Your task to perform on an android device: Open calendar and show me the first week of next month Image 0: 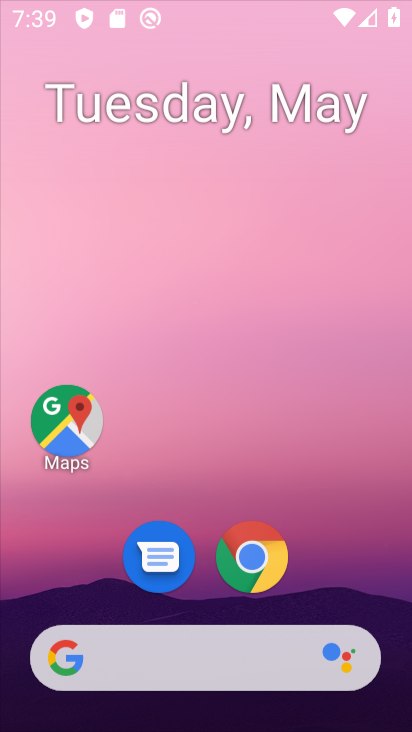
Step 0: drag from (175, 69) to (25, 11)
Your task to perform on an android device: Open calendar and show me the first week of next month Image 1: 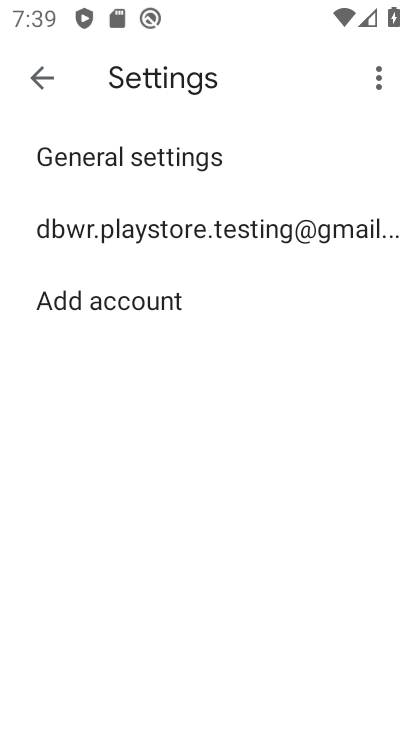
Step 1: click (34, 81)
Your task to perform on an android device: Open calendar and show me the first week of next month Image 2: 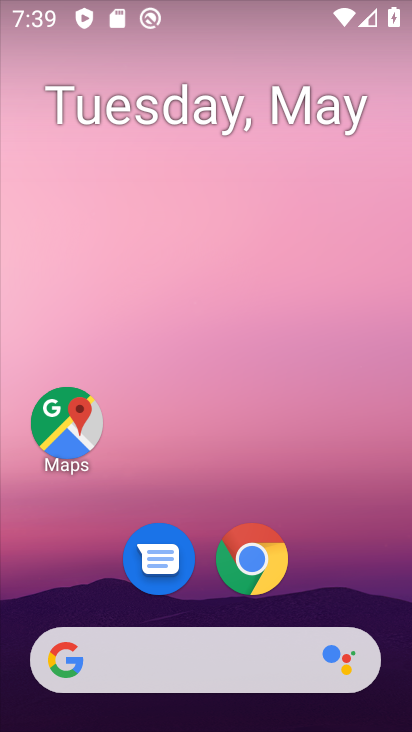
Step 2: drag from (355, 611) to (107, 100)
Your task to perform on an android device: Open calendar and show me the first week of next month Image 3: 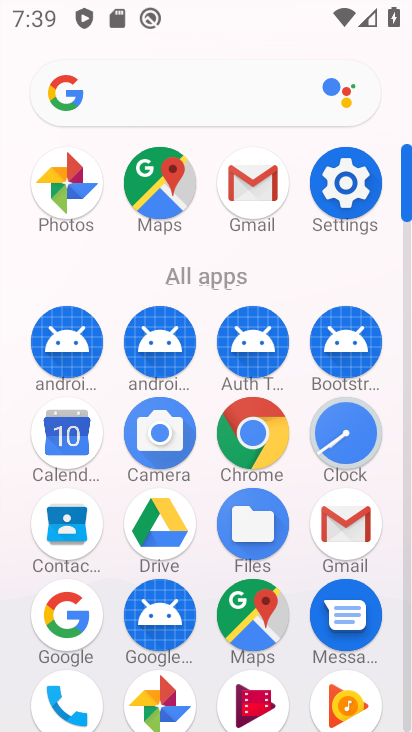
Step 3: click (65, 444)
Your task to perform on an android device: Open calendar and show me the first week of next month Image 4: 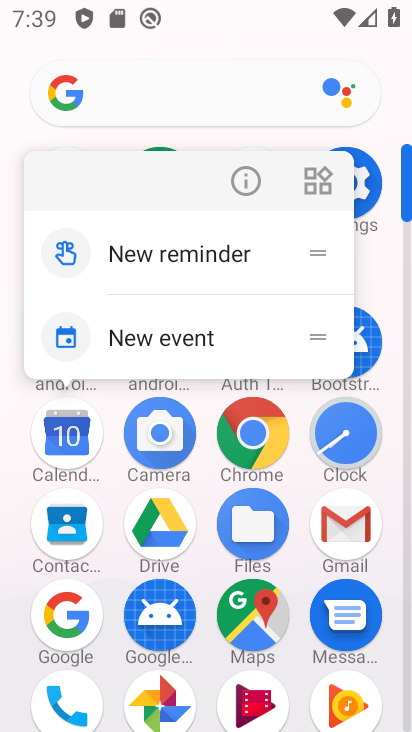
Step 4: click (68, 441)
Your task to perform on an android device: Open calendar and show me the first week of next month Image 5: 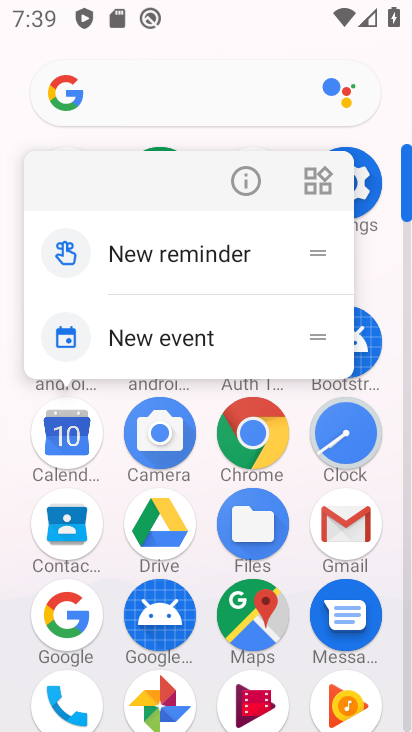
Step 5: click (69, 440)
Your task to perform on an android device: Open calendar and show me the first week of next month Image 6: 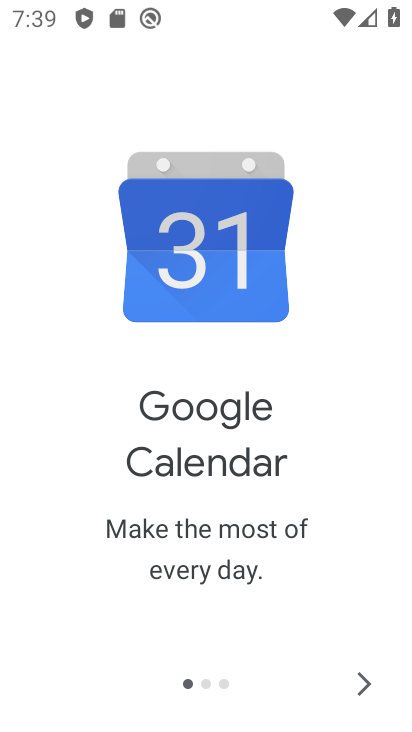
Step 6: click (361, 679)
Your task to perform on an android device: Open calendar and show me the first week of next month Image 7: 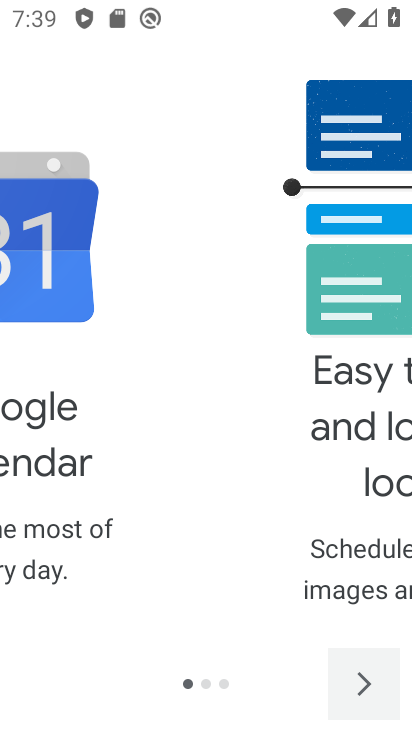
Step 7: click (361, 679)
Your task to perform on an android device: Open calendar and show me the first week of next month Image 8: 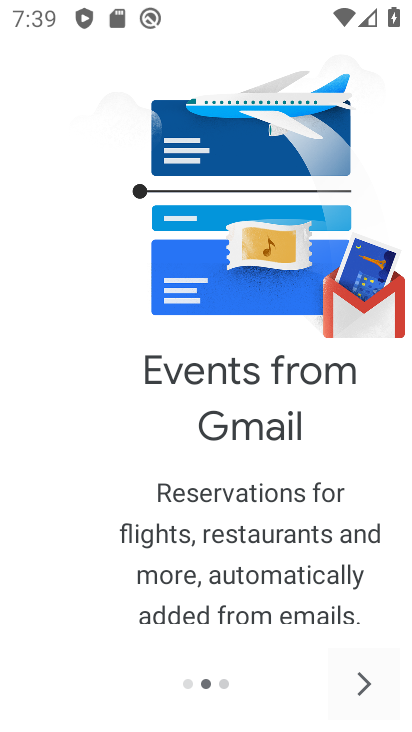
Step 8: click (361, 679)
Your task to perform on an android device: Open calendar and show me the first week of next month Image 9: 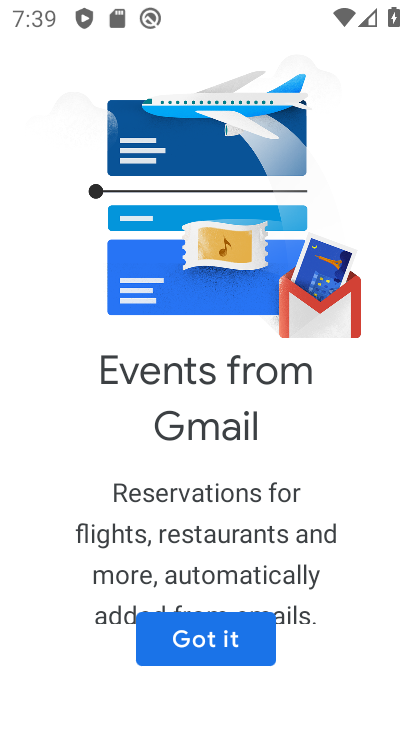
Step 9: click (364, 681)
Your task to perform on an android device: Open calendar and show me the first week of next month Image 10: 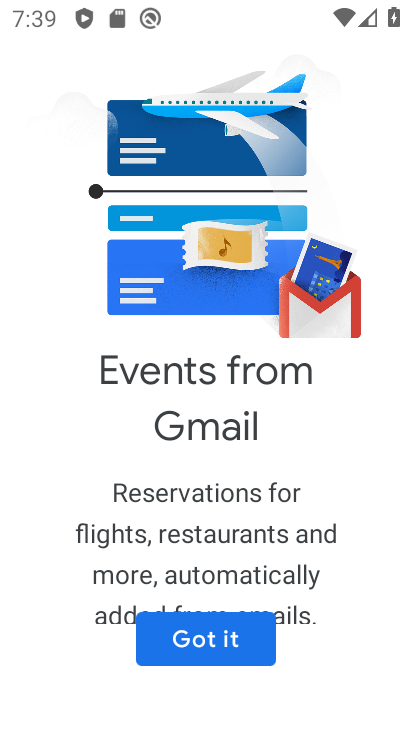
Step 10: click (235, 642)
Your task to perform on an android device: Open calendar and show me the first week of next month Image 11: 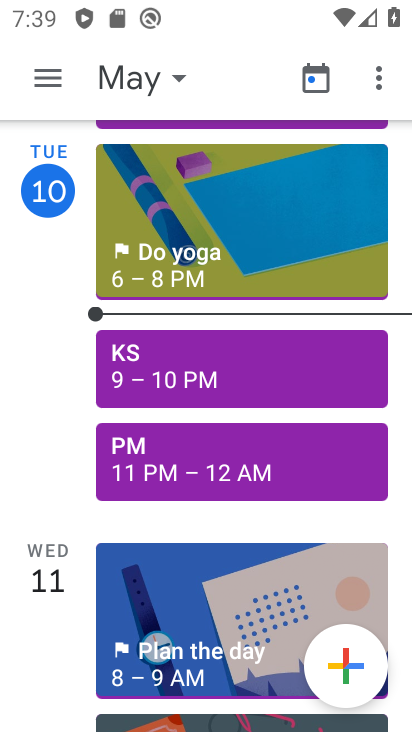
Step 11: click (174, 74)
Your task to perform on an android device: Open calendar and show me the first week of next month Image 12: 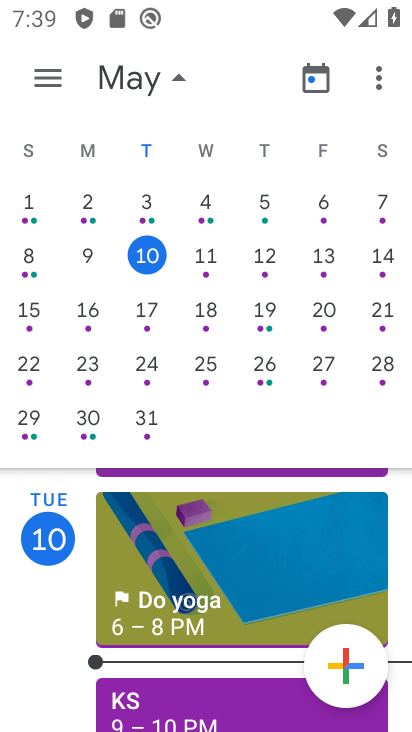
Step 12: drag from (250, 309) to (0, 369)
Your task to perform on an android device: Open calendar and show me the first week of next month Image 13: 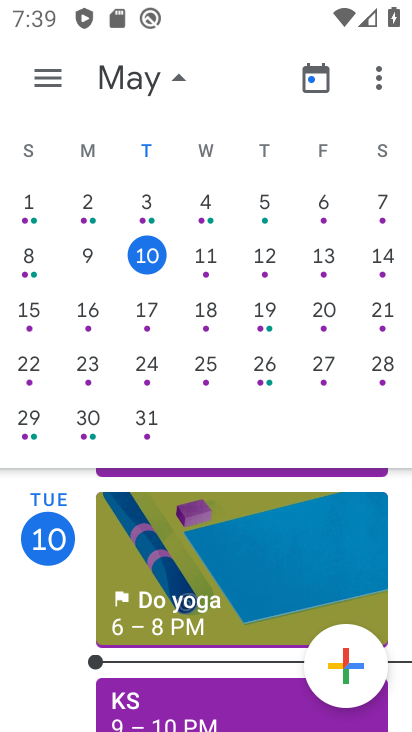
Step 13: drag from (241, 310) to (87, 215)
Your task to perform on an android device: Open calendar and show me the first week of next month Image 14: 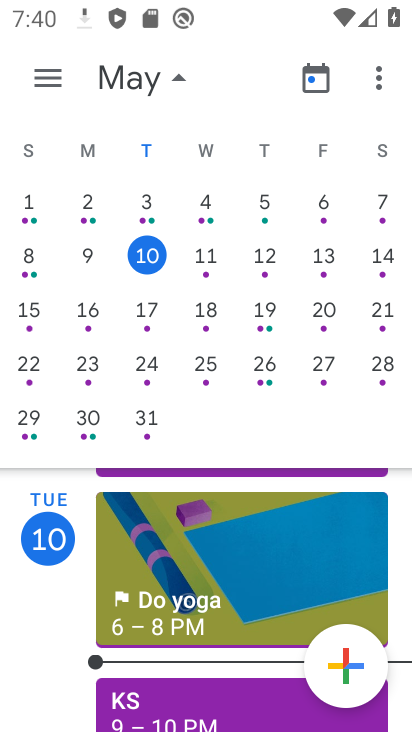
Step 14: drag from (259, 280) to (62, 279)
Your task to perform on an android device: Open calendar and show me the first week of next month Image 15: 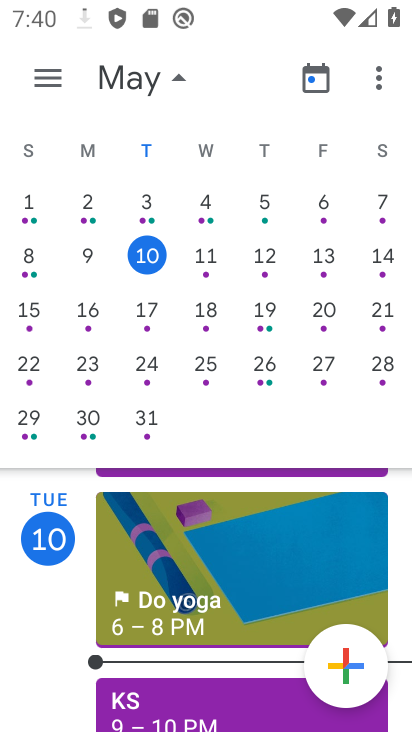
Step 15: drag from (321, 251) to (214, 370)
Your task to perform on an android device: Open calendar and show me the first week of next month Image 16: 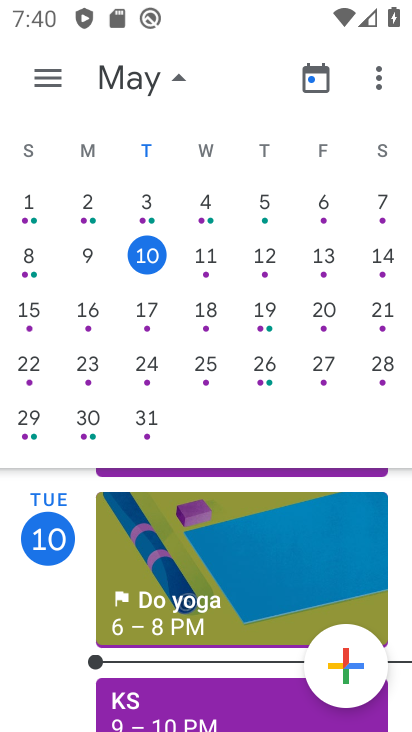
Step 16: drag from (317, 256) to (7, 298)
Your task to perform on an android device: Open calendar and show me the first week of next month Image 17: 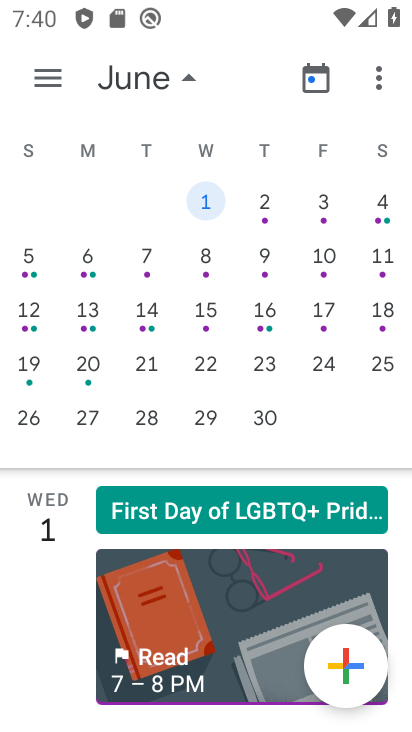
Step 17: click (215, 318)
Your task to perform on an android device: Open calendar and show me the first week of next month Image 18: 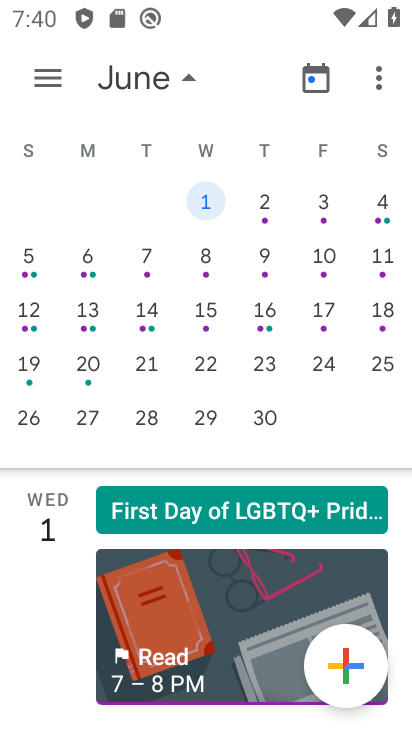
Step 18: click (215, 318)
Your task to perform on an android device: Open calendar and show me the first week of next month Image 19: 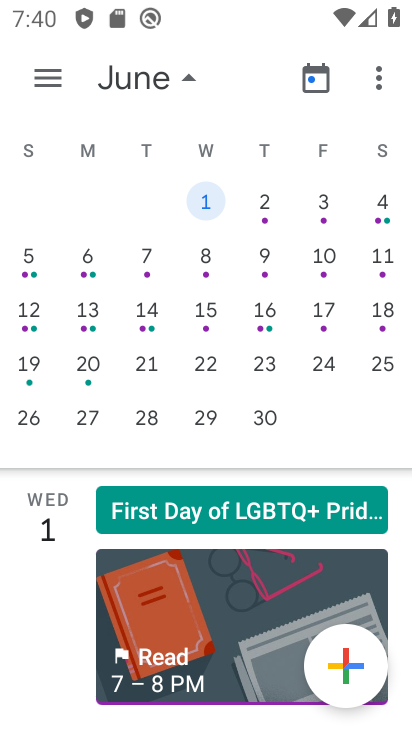
Step 19: click (215, 318)
Your task to perform on an android device: Open calendar and show me the first week of next month Image 20: 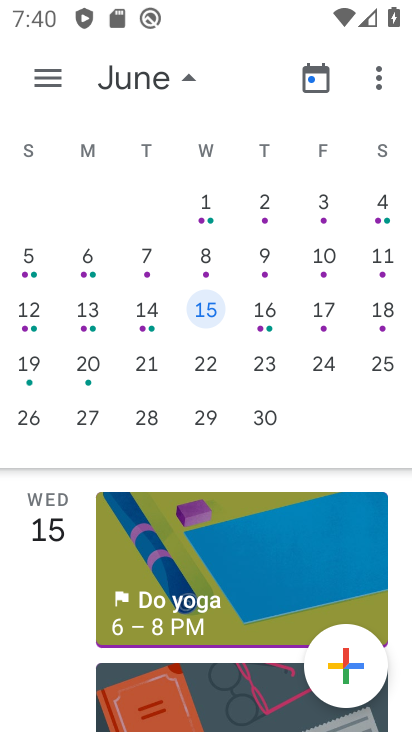
Step 20: click (215, 318)
Your task to perform on an android device: Open calendar and show me the first week of next month Image 21: 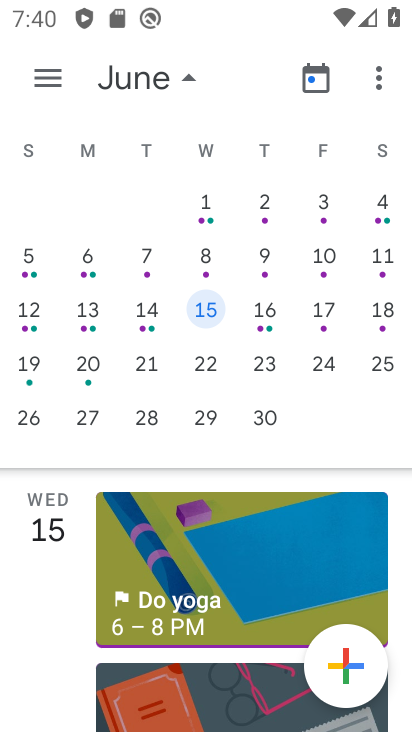
Step 21: click (204, 315)
Your task to perform on an android device: Open calendar and show me the first week of next month Image 22: 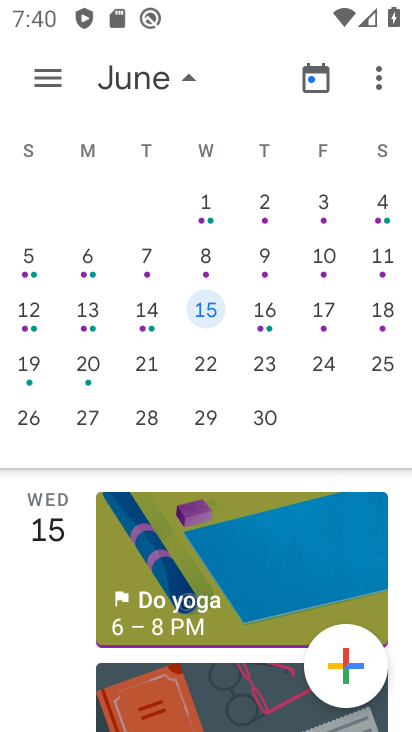
Step 22: task complete